Your task to perform on an android device: Search for Mexican restaurants on Maps Image 0: 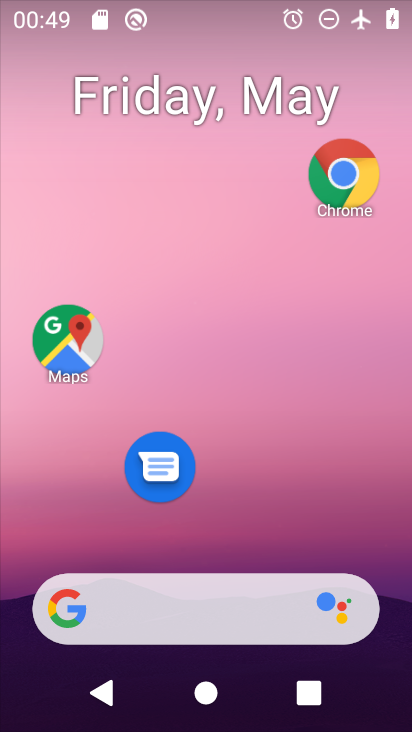
Step 0: click (86, 338)
Your task to perform on an android device: Search for Mexican restaurants on Maps Image 1: 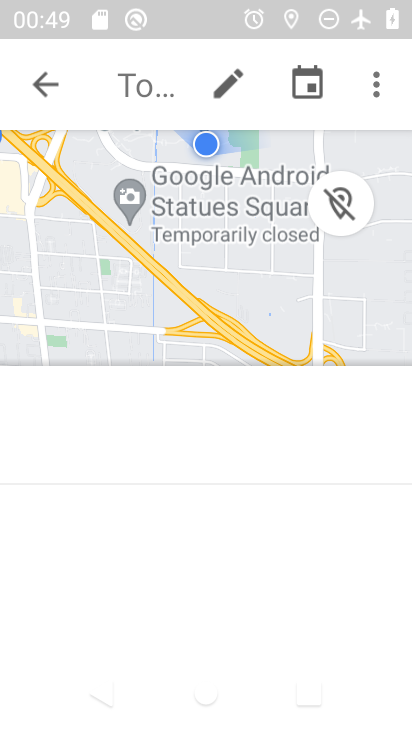
Step 1: click (35, 84)
Your task to perform on an android device: Search for Mexican restaurants on Maps Image 2: 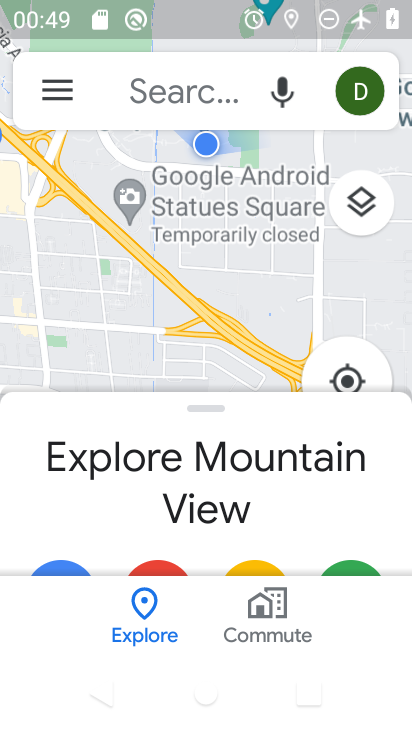
Step 2: drag from (263, 347) to (265, 231)
Your task to perform on an android device: Search for Mexican restaurants on Maps Image 3: 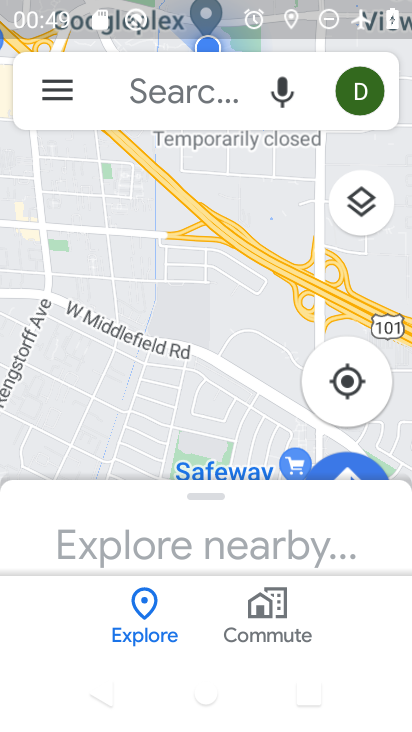
Step 3: click (201, 89)
Your task to perform on an android device: Search for Mexican restaurants on Maps Image 4: 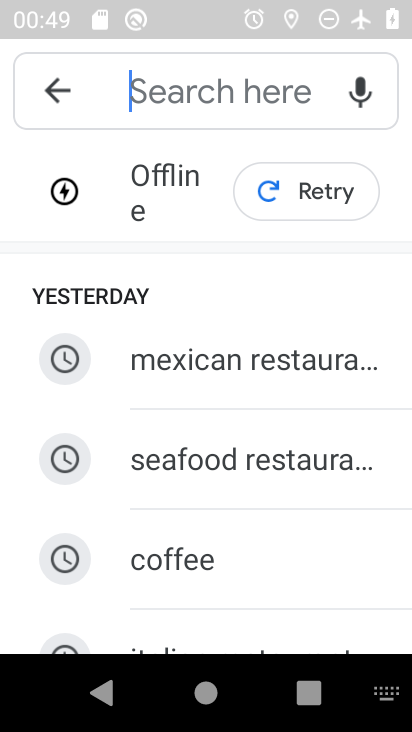
Step 4: click (225, 366)
Your task to perform on an android device: Search for Mexican restaurants on Maps Image 5: 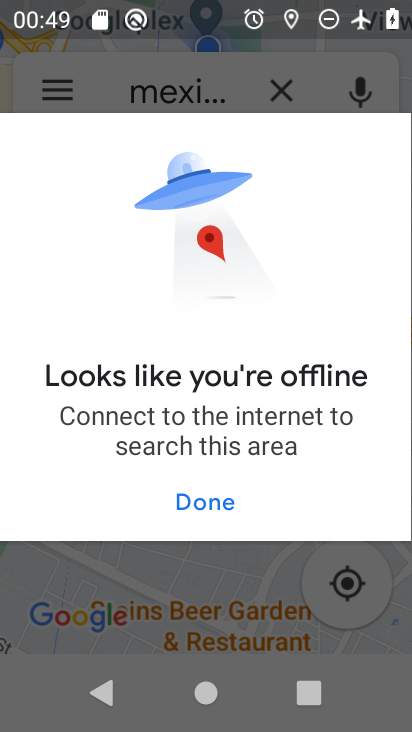
Step 5: click (201, 492)
Your task to perform on an android device: Search for Mexican restaurants on Maps Image 6: 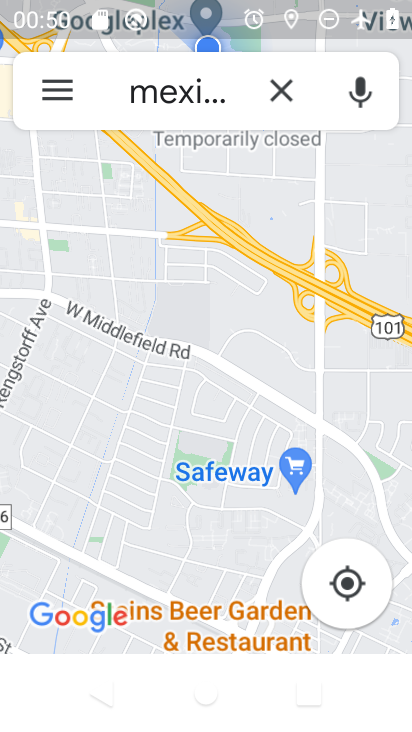
Step 6: task complete